Your task to perform on an android device: Open Youtube and go to the subscriptions tab Image 0: 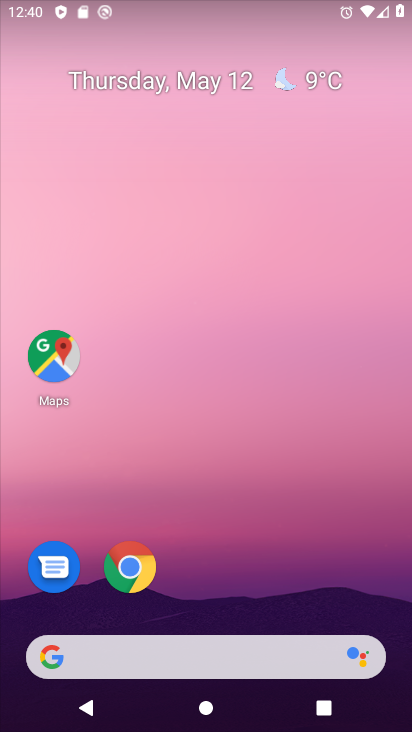
Step 0: drag from (205, 620) to (322, 76)
Your task to perform on an android device: Open Youtube and go to the subscriptions tab Image 1: 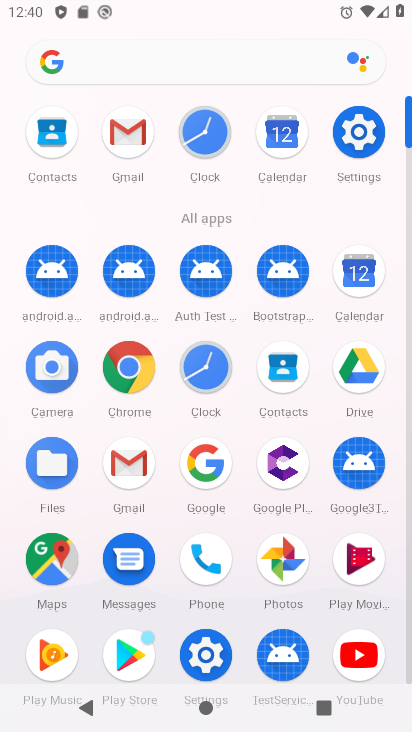
Step 1: click (347, 653)
Your task to perform on an android device: Open Youtube and go to the subscriptions tab Image 2: 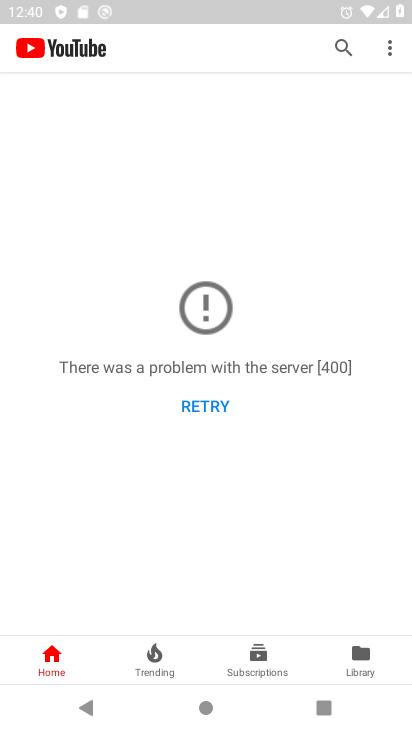
Step 2: click (264, 658)
Your task to perform on an android device: Open Youtube and go to the subscriptions tab Image 3: 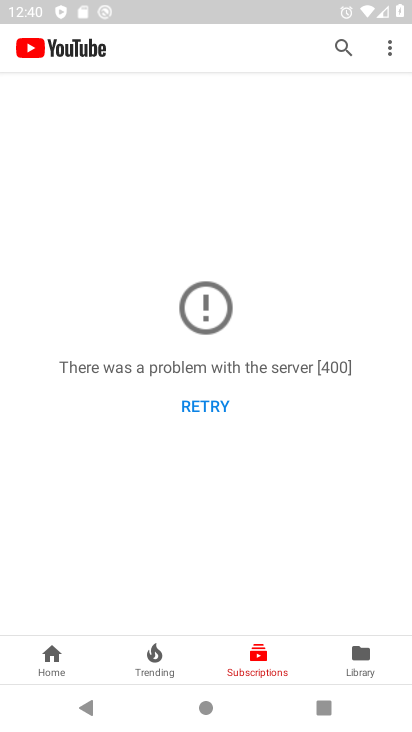
Step 3: task complete